Your task to perform on an android device: Search for pizza restaurants on Maps Image 0: 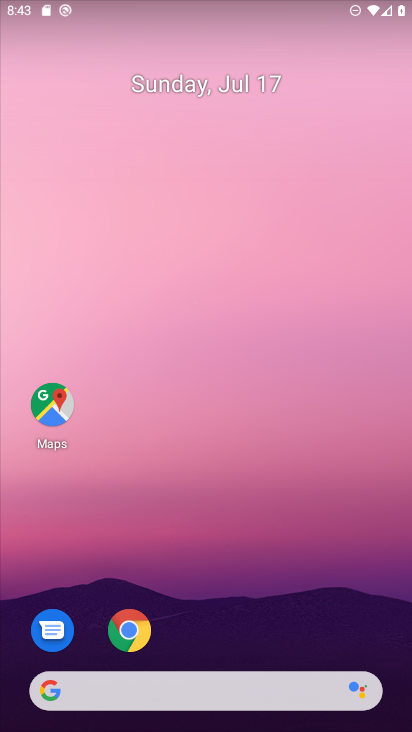
Step 0: drag from (382, 645) to (198, 7)
Your task to perform on an android device: Search for pizza restaurants on Maps Image 1: 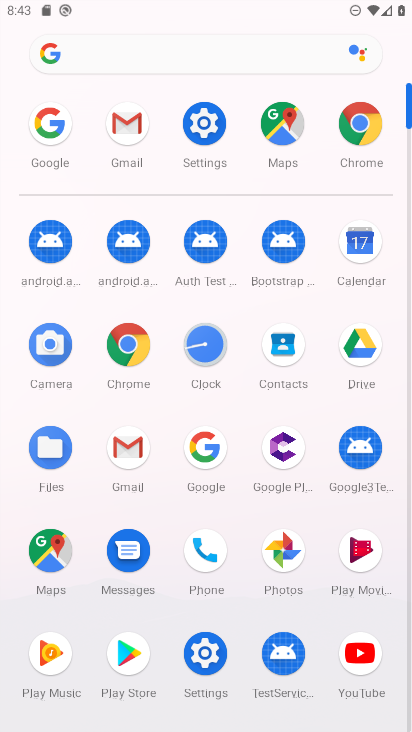
Step 1: click (27, 558)
Your task to perform on an android device: Search for pizza restaurants on Maps Image 2: 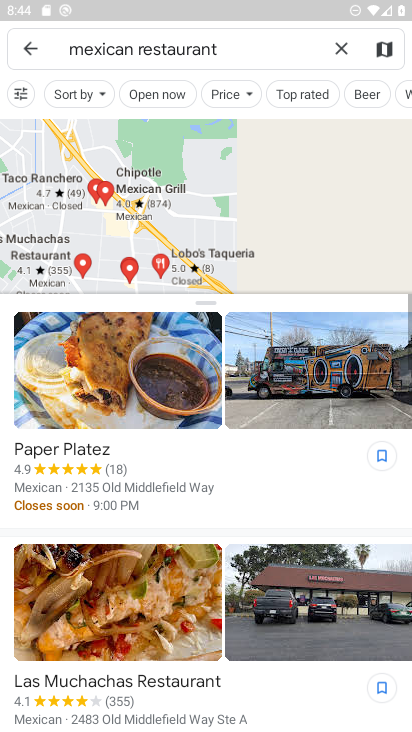
Step 2: press back button
Your task to perform on an android device: Search for pizza restaurants on Maps Image 3: 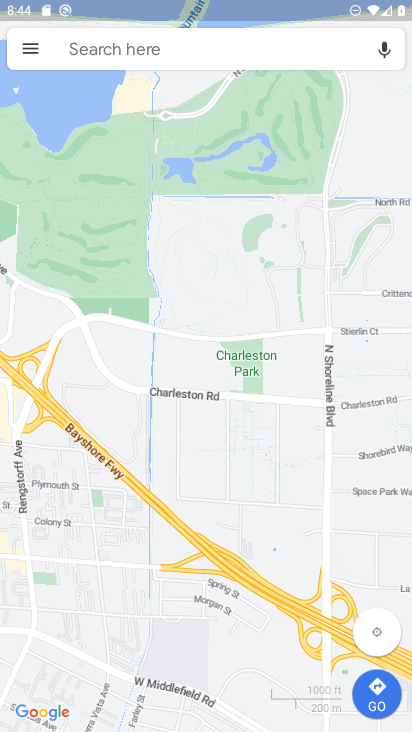
Step 3: click (149, 41)
Your task to perform on an android device: Search for pizza restaurants on Maps Image 4: 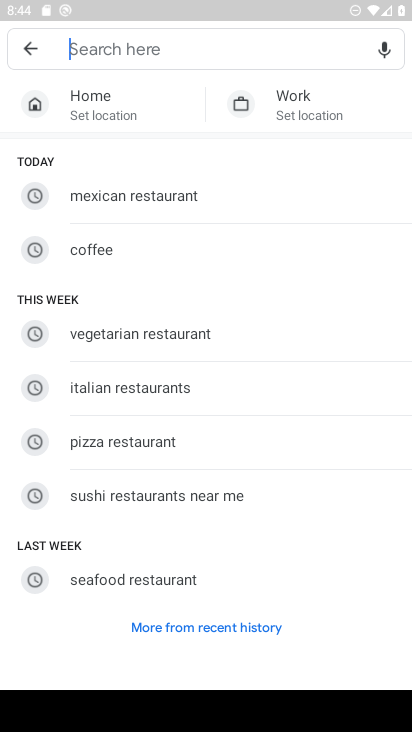
Step 4: click (142, 447)
Your task to perform on an android device: Search for pizza restaurants on Maps Image 5: 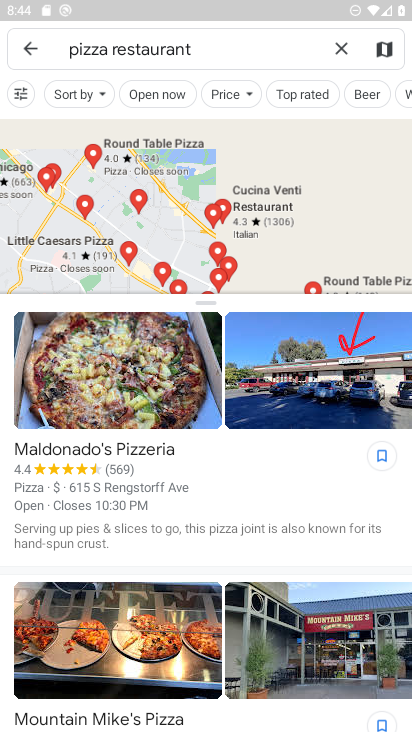
Step 5: task complete